Your task to perform on an android device: change the clock style Image 0: 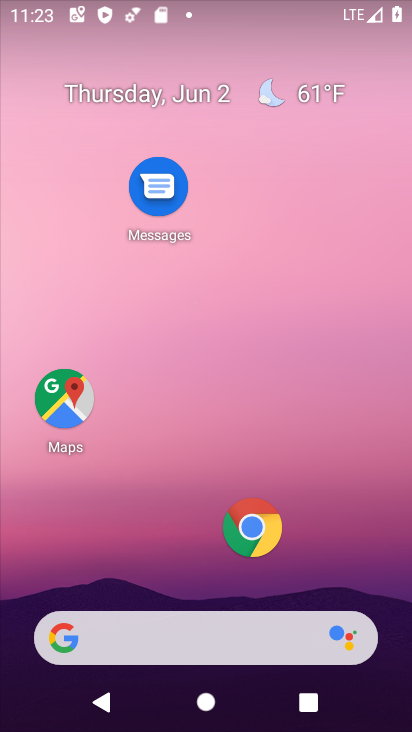
Step 0: press home button
Your task to perform on an android device: change the clock style Image 1: 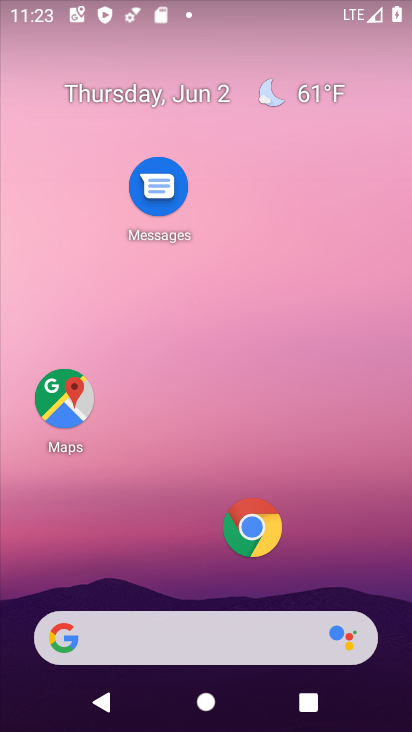
Step 1: drag from (221, 590) to (288, 12)
Your task to perform on an android device: change the clock style Image 2: 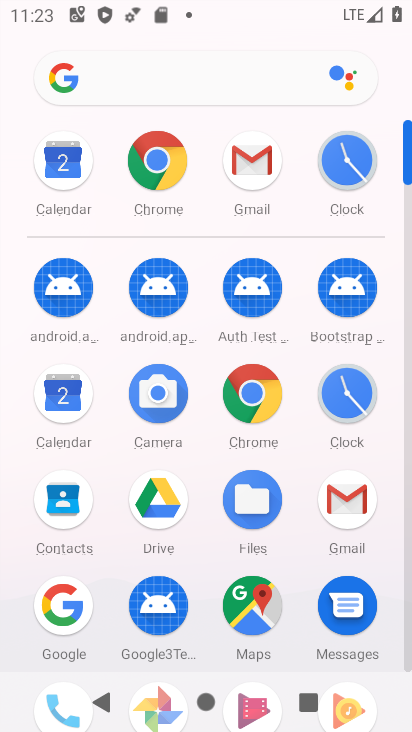
Step 2: click (345, 387)
Your task to perform on an android device: change the clock style Image 3: 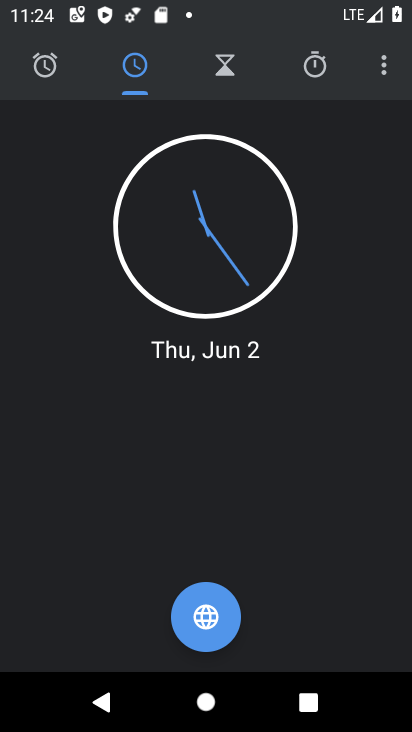
Step 3: click (383, 54)
Your task to perform on an android device: change the clock style Image 4: 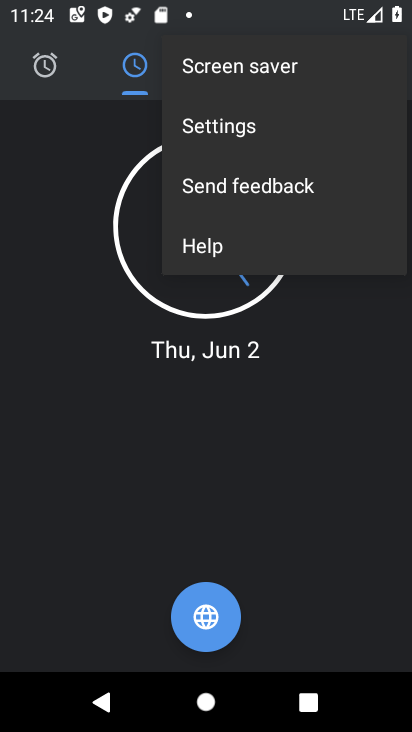
Step 4: click (268, 125)
Your task to perform on an android device: change the clock style Image 5: 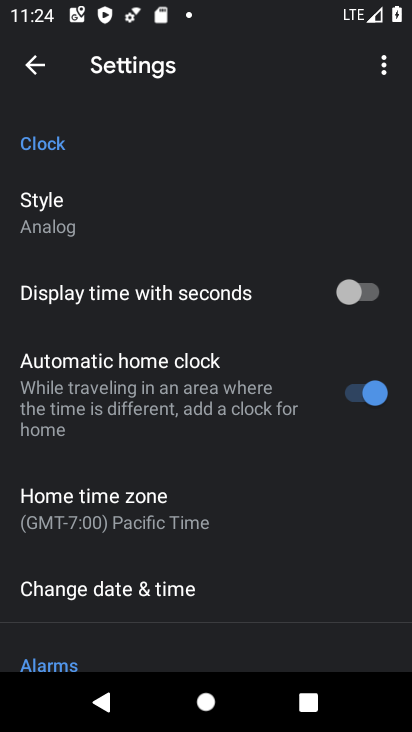
Step 5: click (97, 215)
Your task to perform on an android device: change the clock style Image 6: 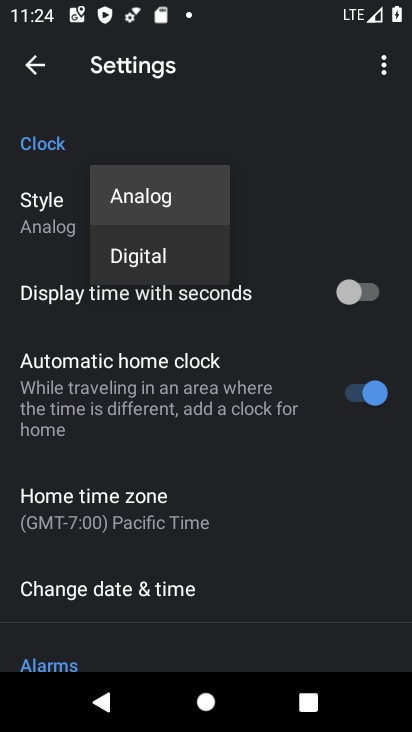
Step 6: click (180, 256)
Your task to perform on an android device: change the clock style Image 7: 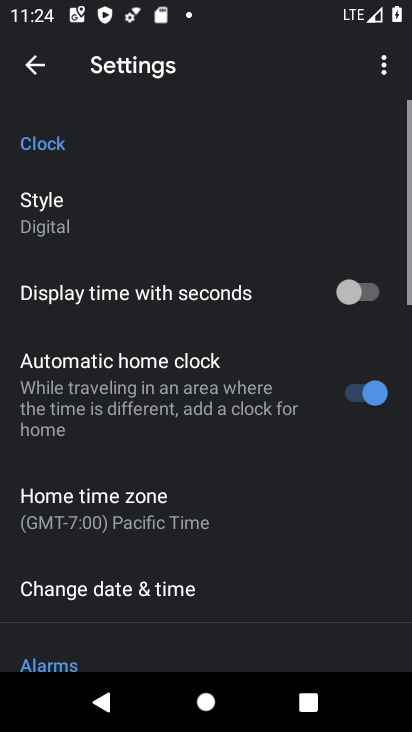
Step 7: task complete